Your task to perform on an android device: change the clock display to analog Image 0: 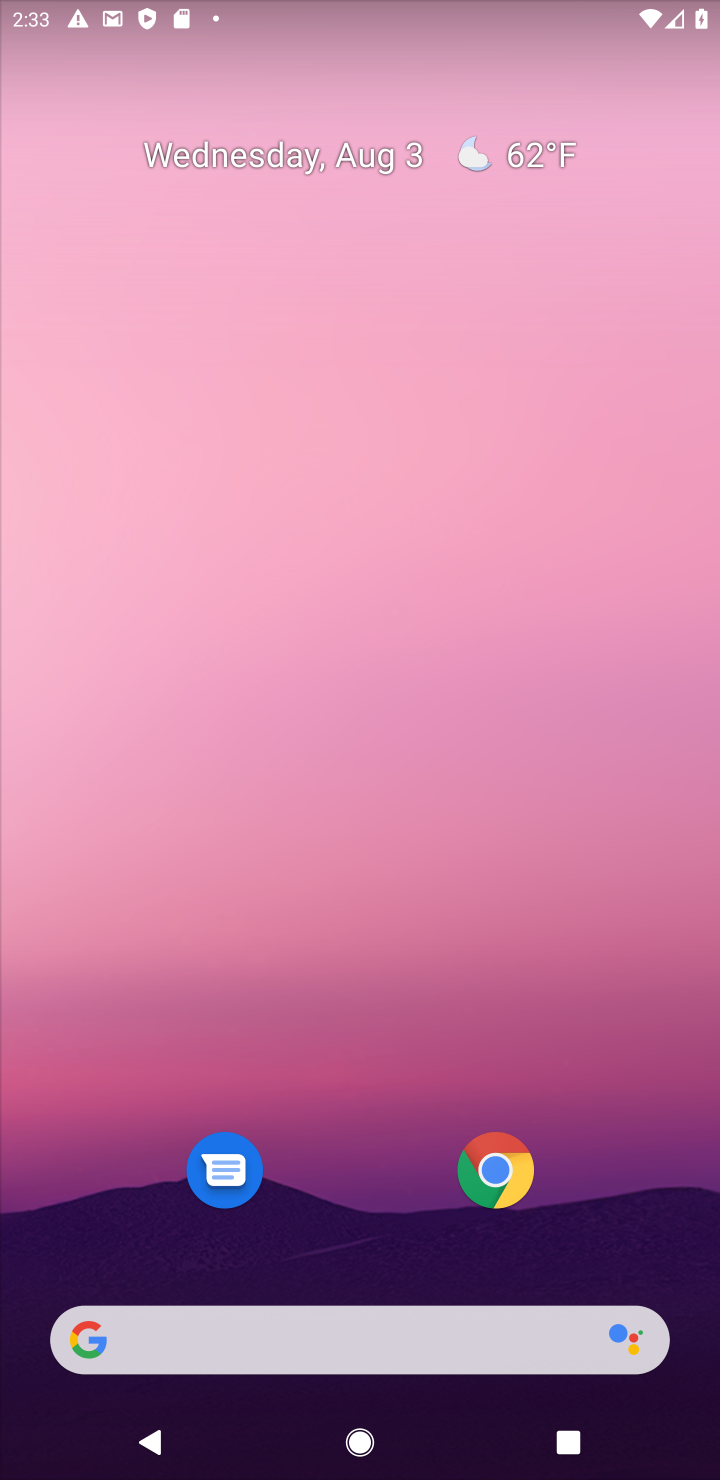
Step 0: click (412, 706)
Your task to perform on an android device: change the clock display to analog Image 1: 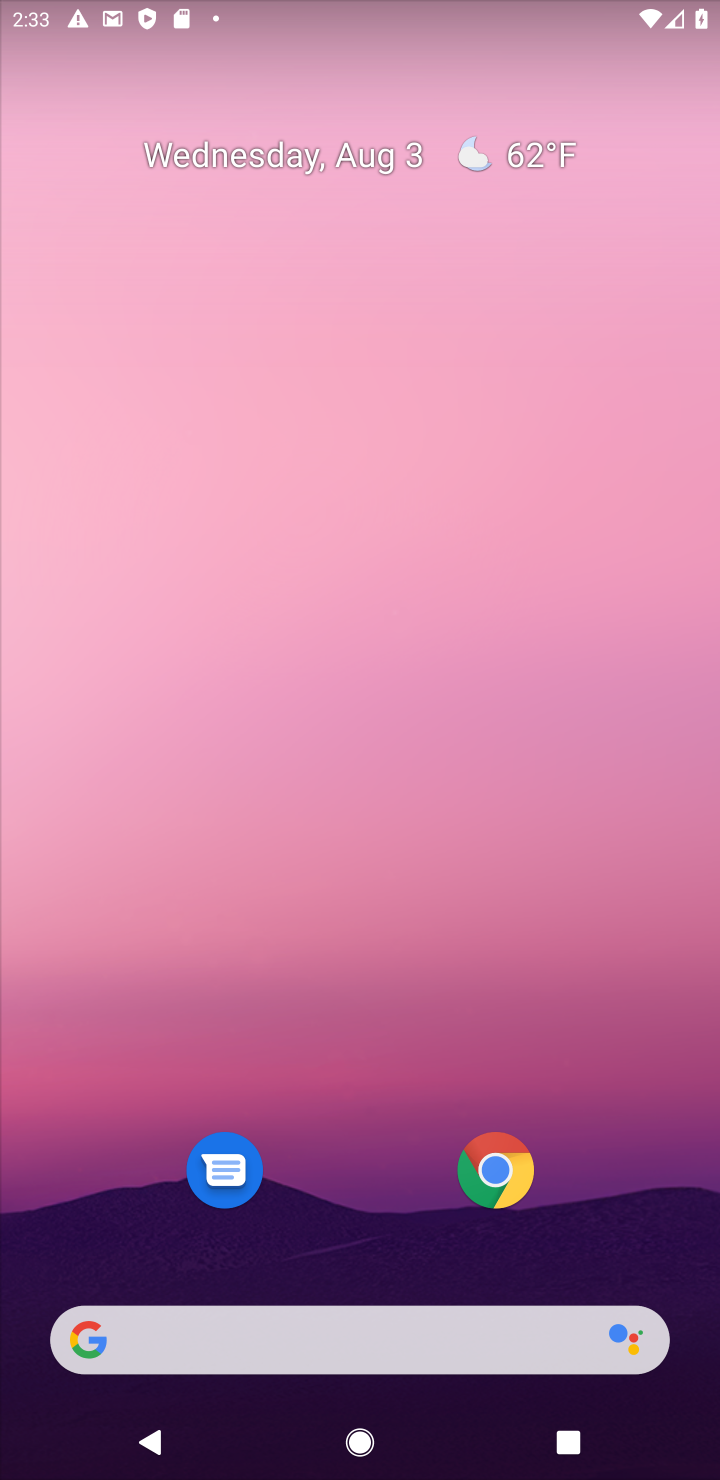
Step 1: drag from (315, 1066) to (301, 73)
Your task to perform on an android device: change the clock display to analog Image 2: 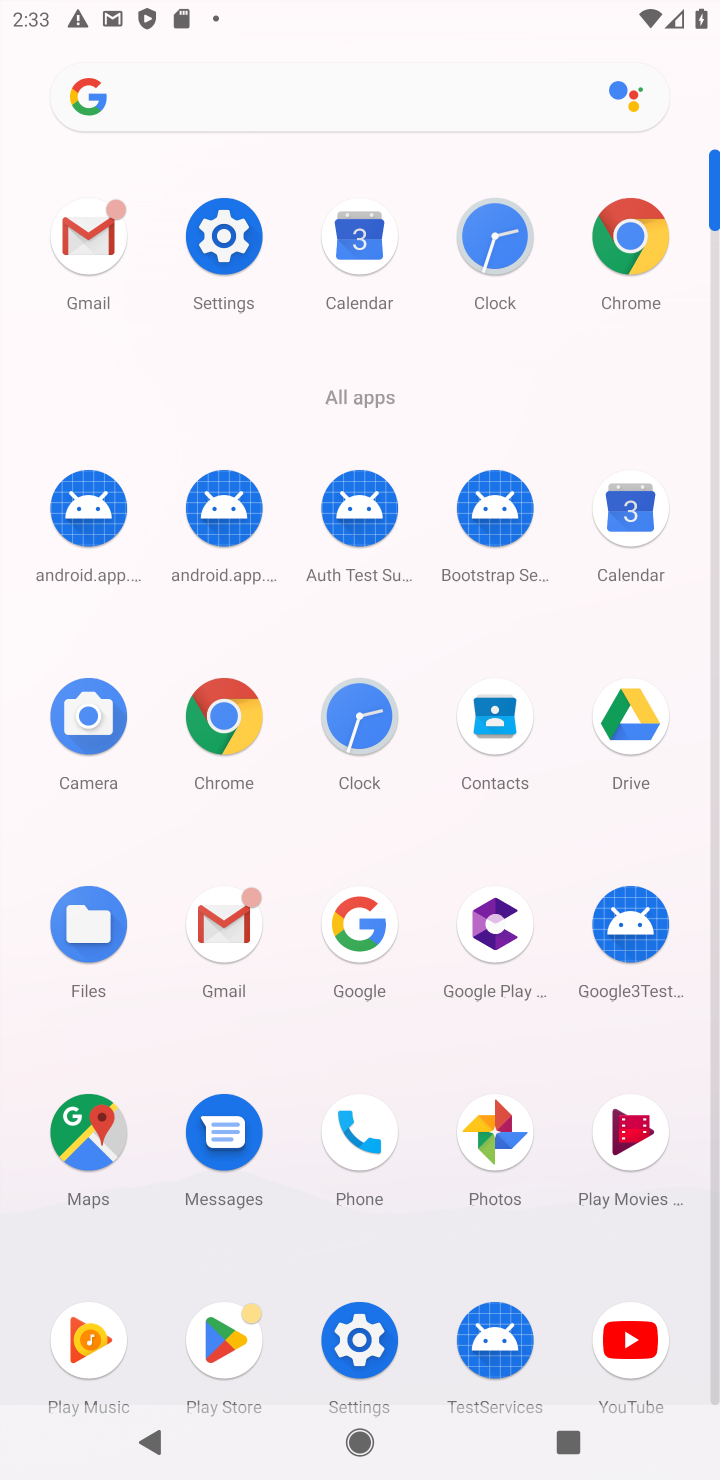
Step 2: click (485, 226)
Your task to perform on an android device: change the clock display to analog Image 3: 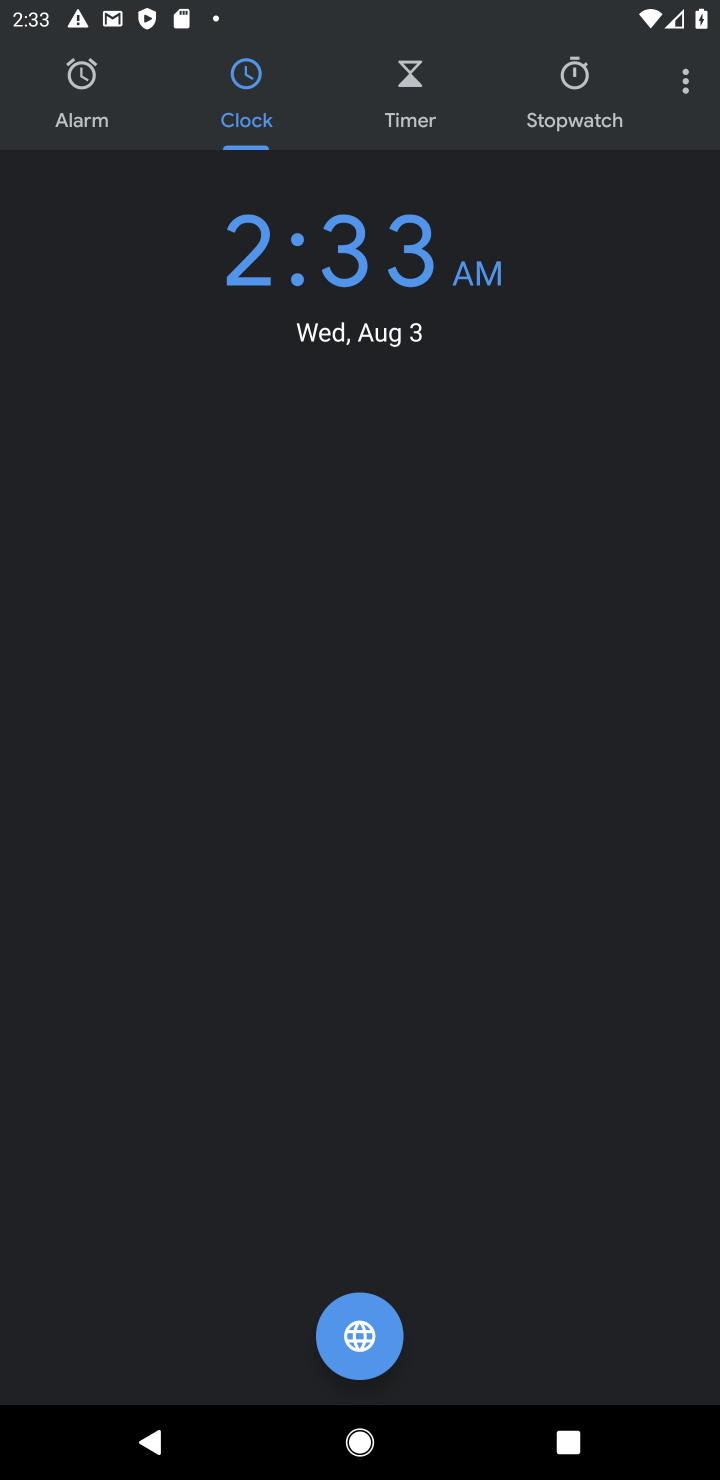
Step 3: click (690, 68)
Your task to perform on an android device: change the clock display to analog Image 4: 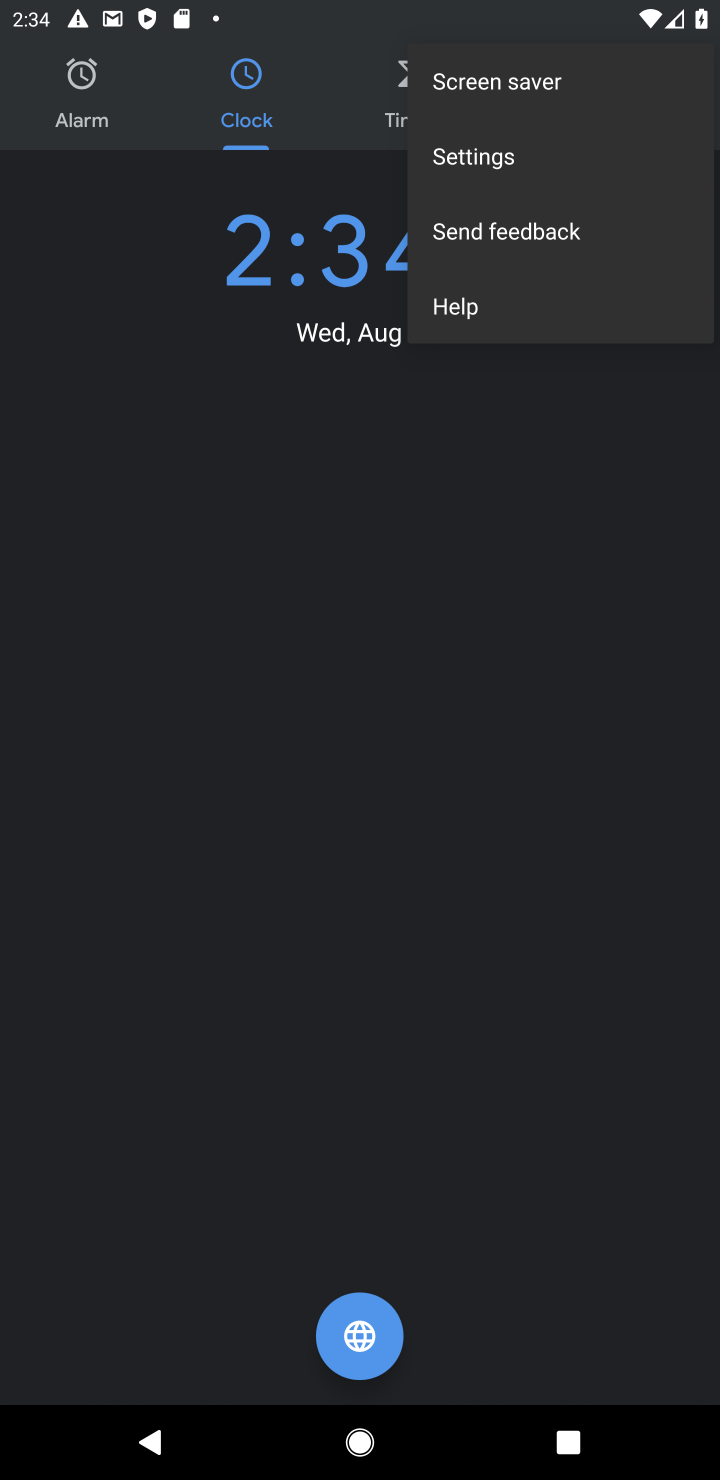
Step 4: click (532, 164)
Your task to perform on an android device: change the clock display to analog Image 5: 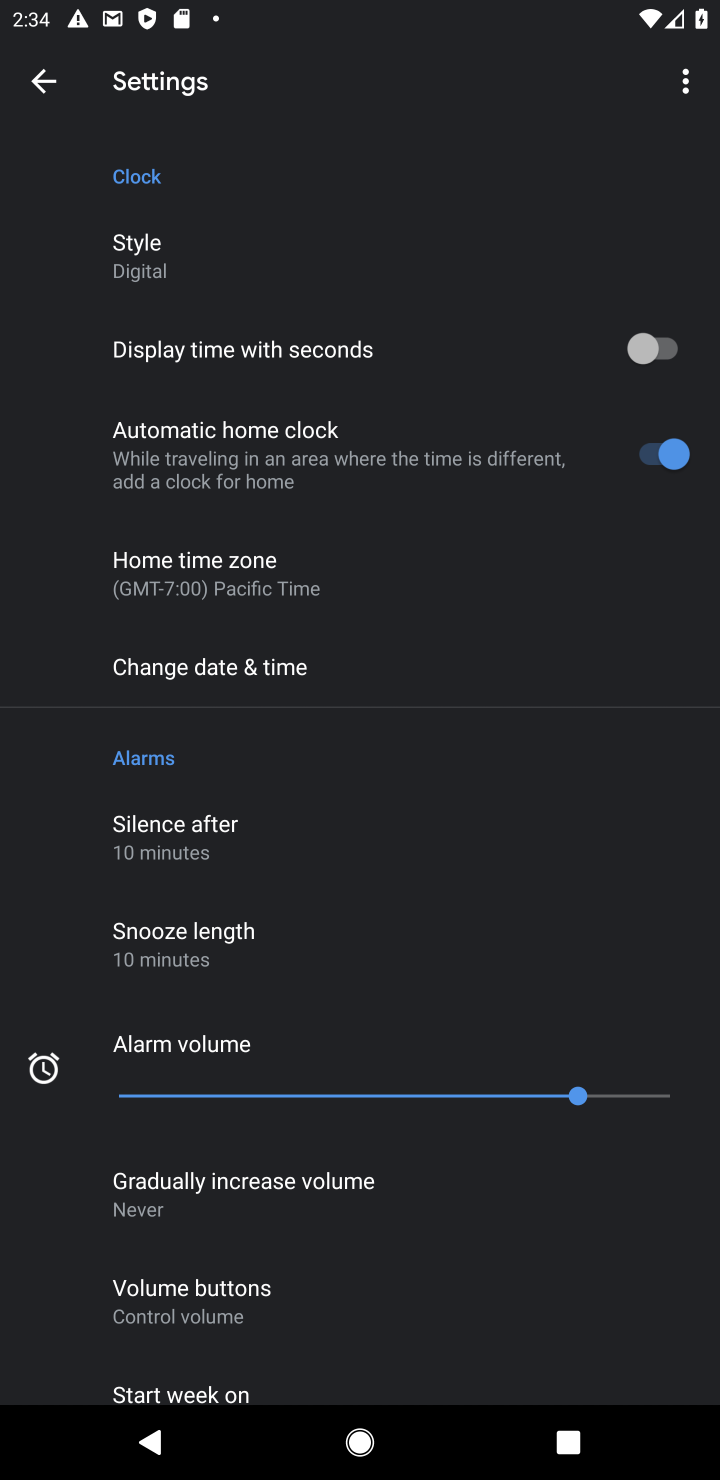
Step 5: click (183, 278)
Your task to perform on an android device: change the clock display to analog Image 6: 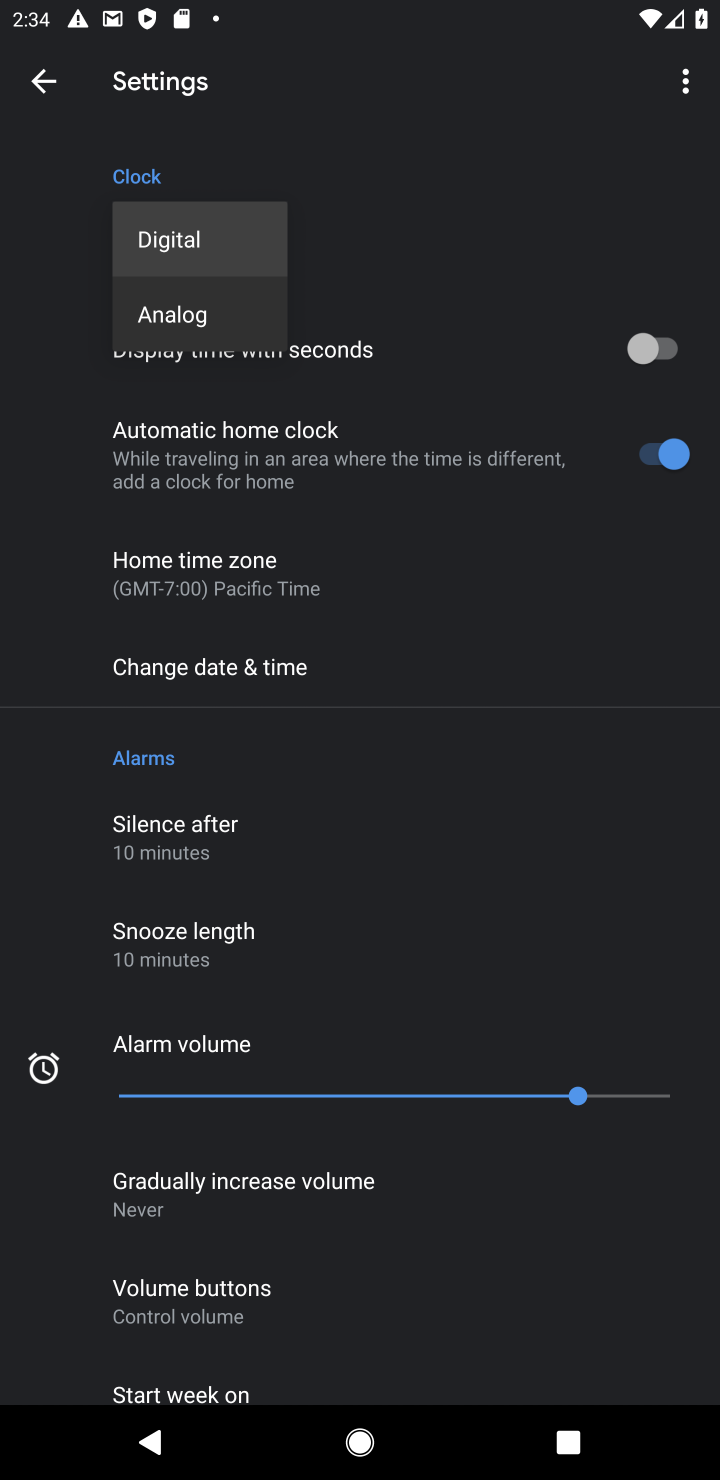
Step 6: click (194, 322)
Your task to perform on an android device: change the clock display to analog Image 7: 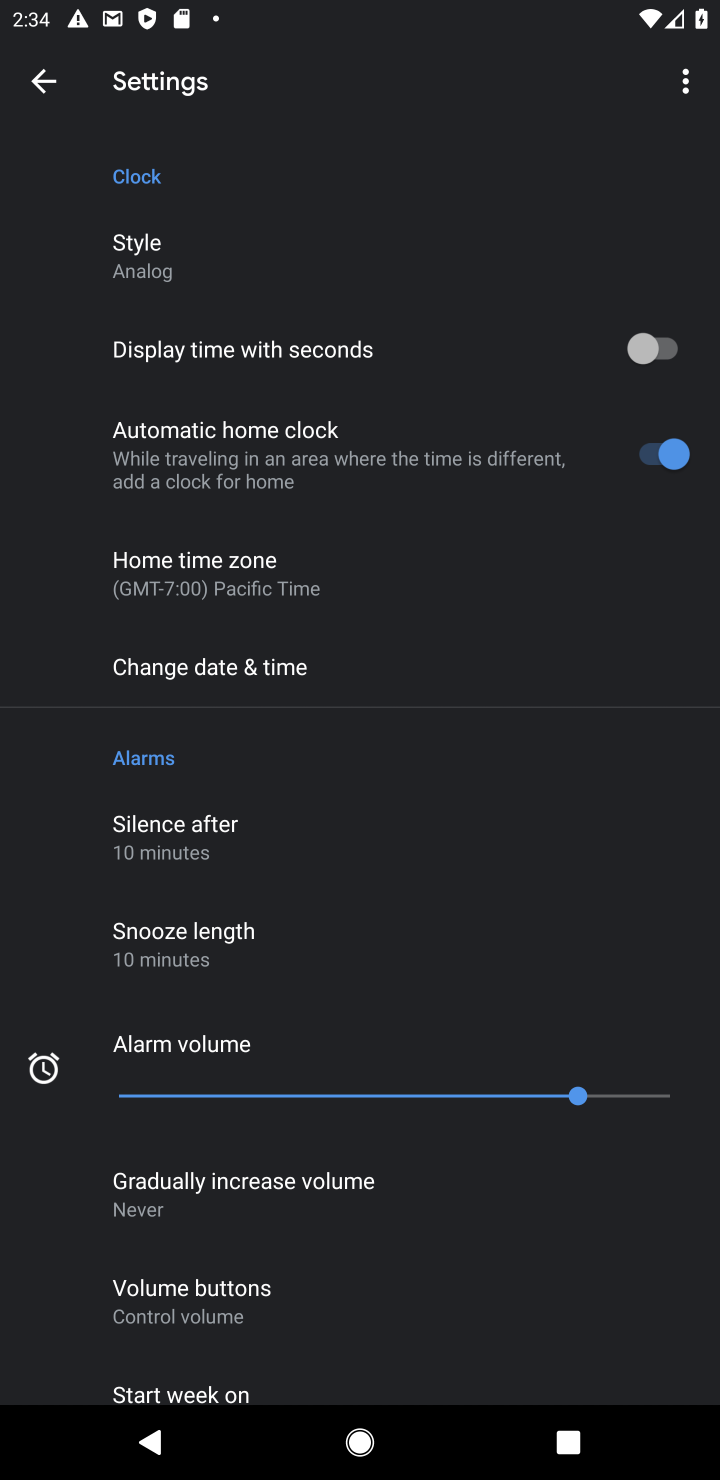
Step 7: task complete